Your task to perform on an android device: Go to Amazon Image 0: 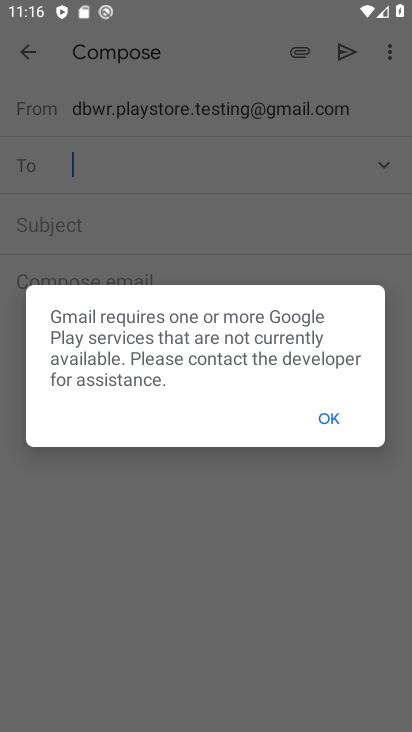
Step 0: press back button
Your task to perform on an android device: Go to Amazon Image 1: 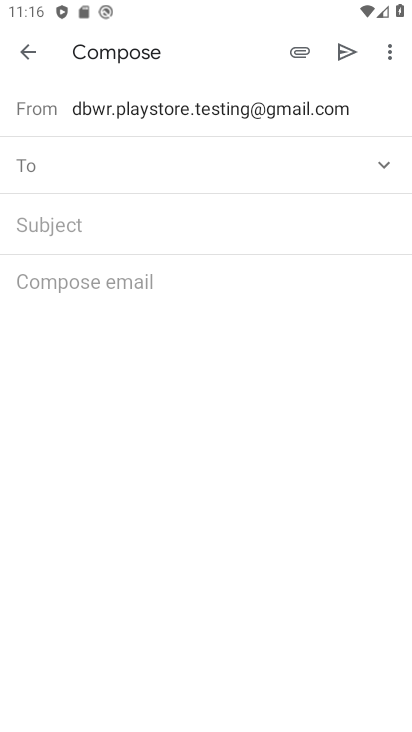
Step 1: press back button
Your task to perform on an android device: Go to Amazon Image 2: 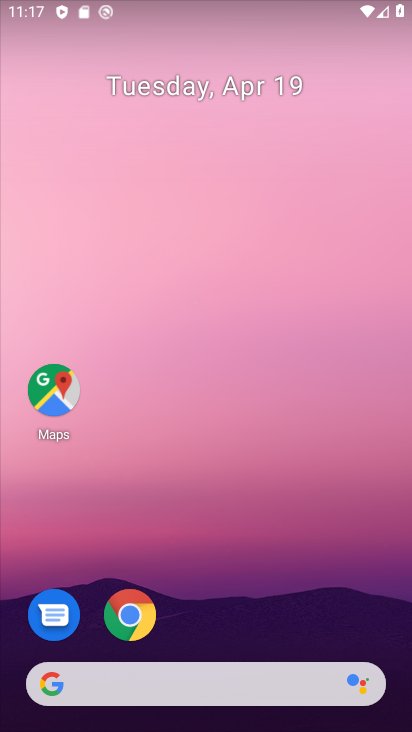
Step 2: click (124, 622)
Your task to perform on an android device: Go to Amazon Image 3: 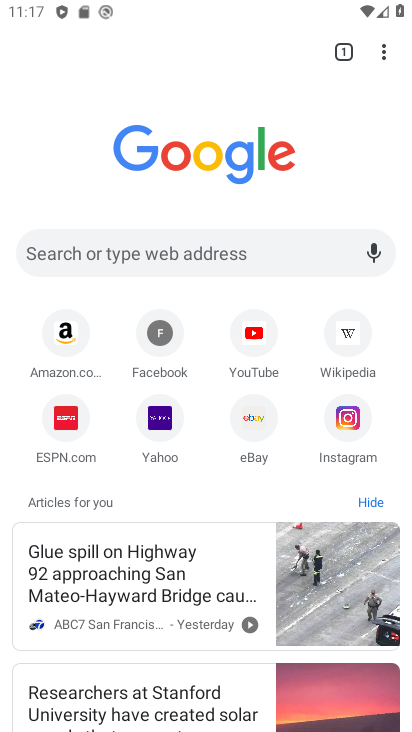
Step 3: click (67, 327)
Your task to perform on an android device: Go to Amazon Image 4: 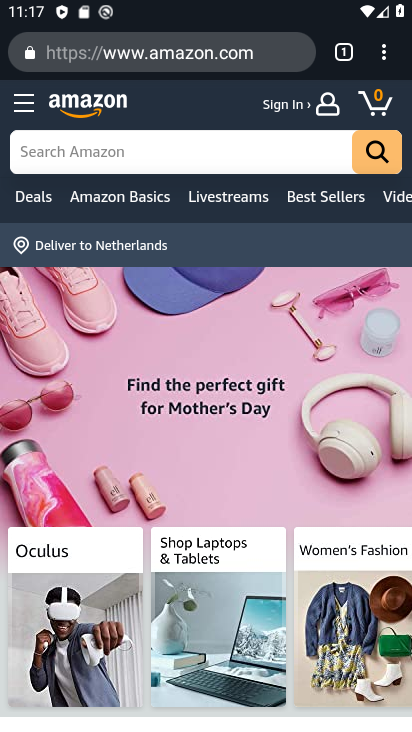
Step 4: task complete